Your task to perform on an android device: turn vacation reply on in the gmail app Image 0: 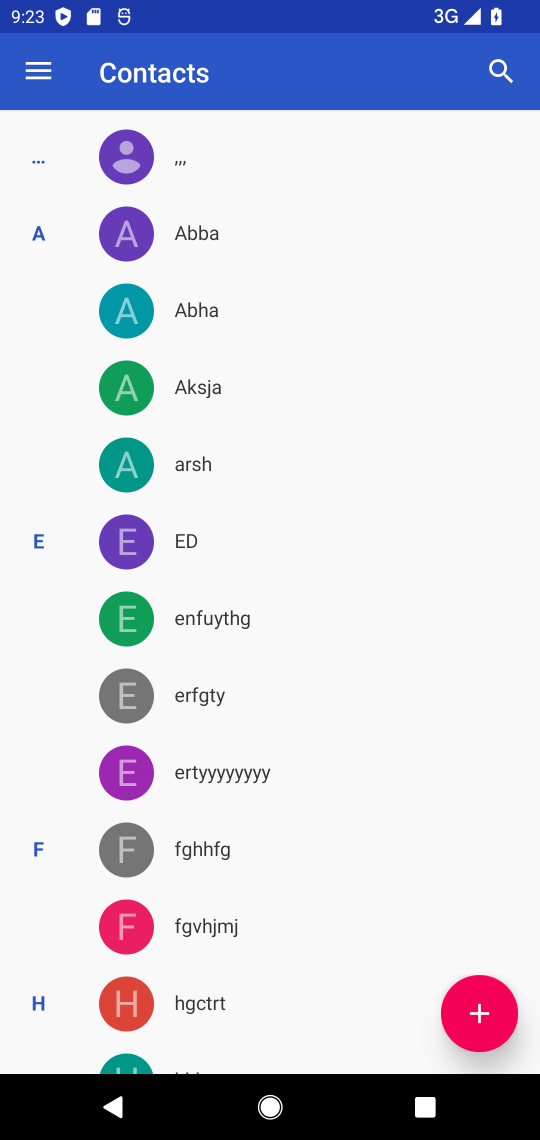
Step 0: press home button
Your task to perform on an android device: turn vacation reply on in the gmail app Image 1: 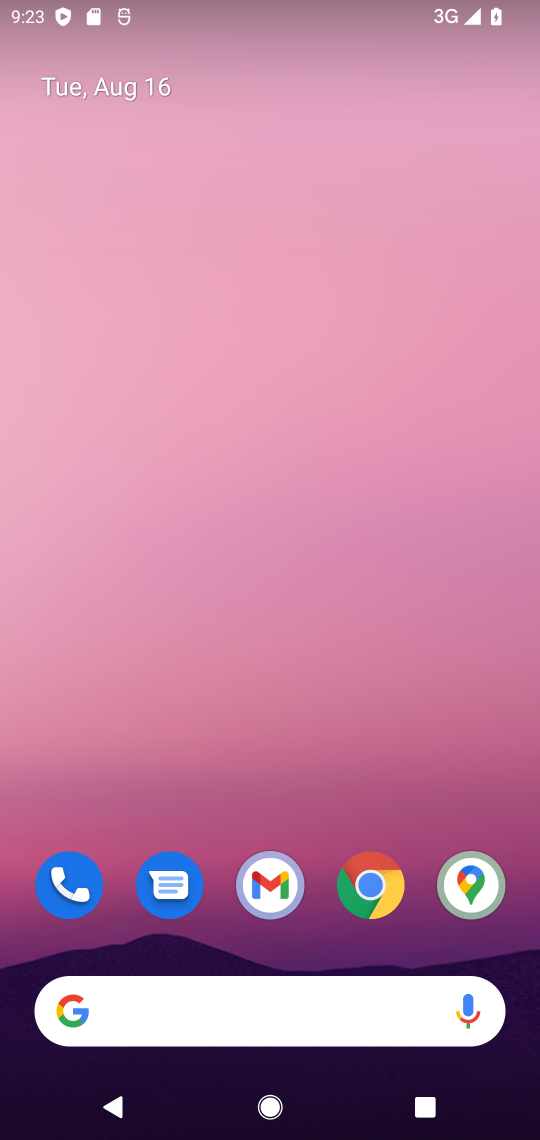
Step 1: click (269, 894)
Your task to perform on an android device: turn vacation reply on in the gmail app Image 2: 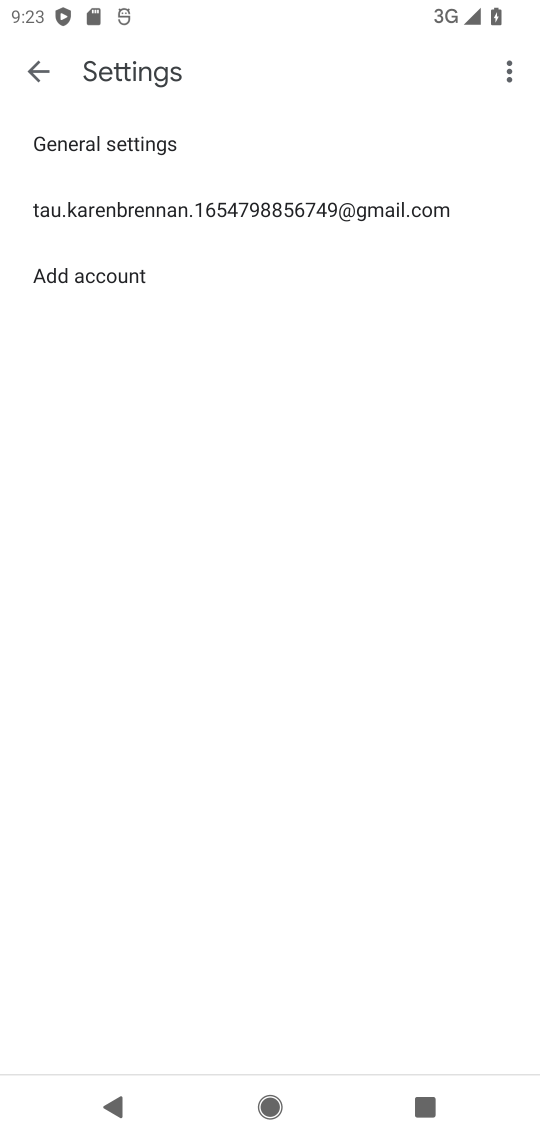
Step 2: click (37, 70)
Your task to perform on an android device: turn vacation reply on in the gmail app Image 3: 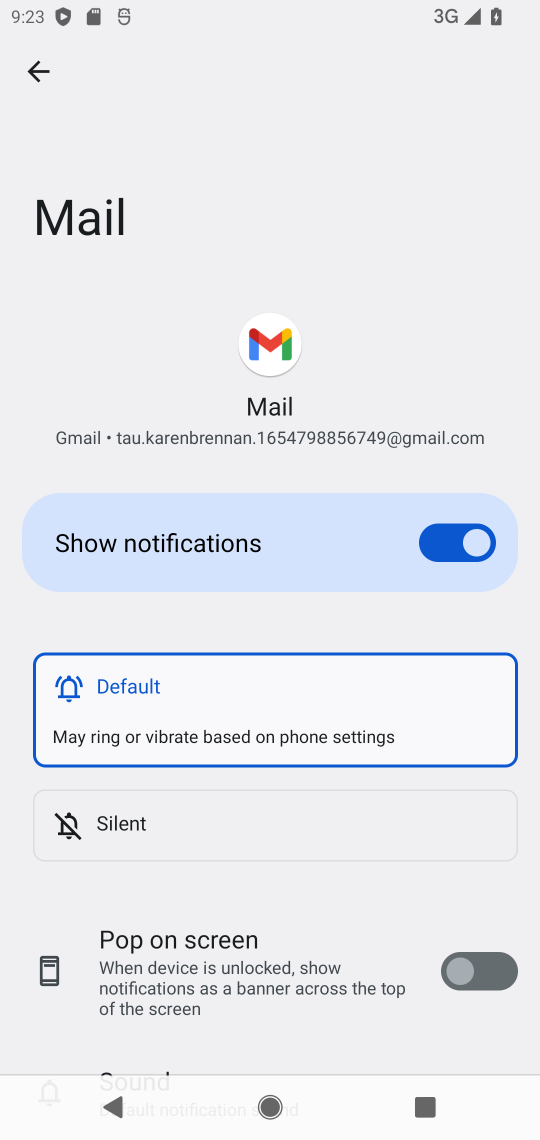
Step 3: click (37, 70)
Your task to perform on an android device: turn vacation reply on in the gmail app Image 4: 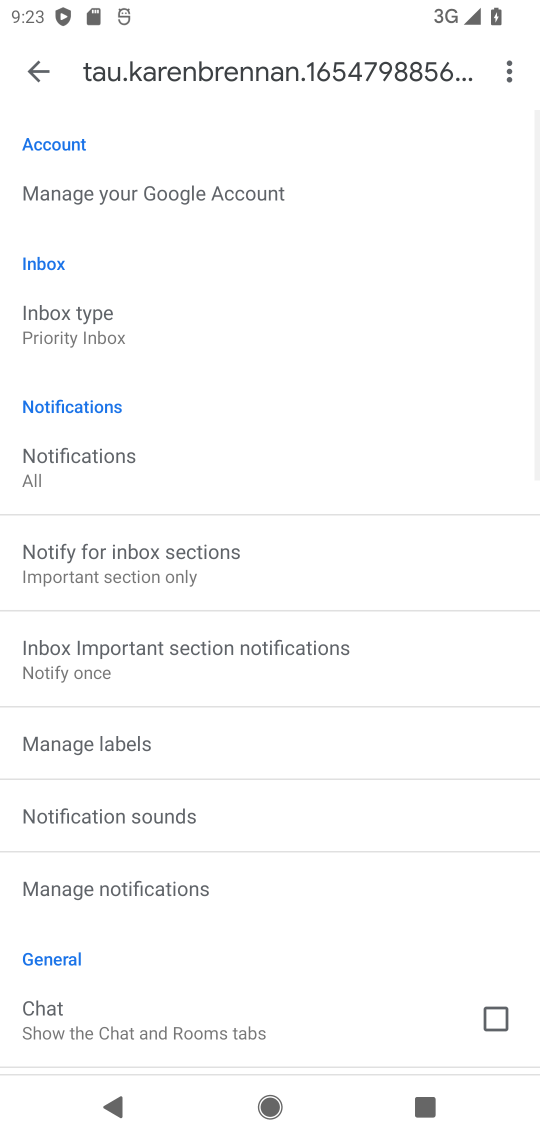
Step 4: click (37, 70)
Your task to perform on an android device: turn vacation reply on in the gmail app Image 5: 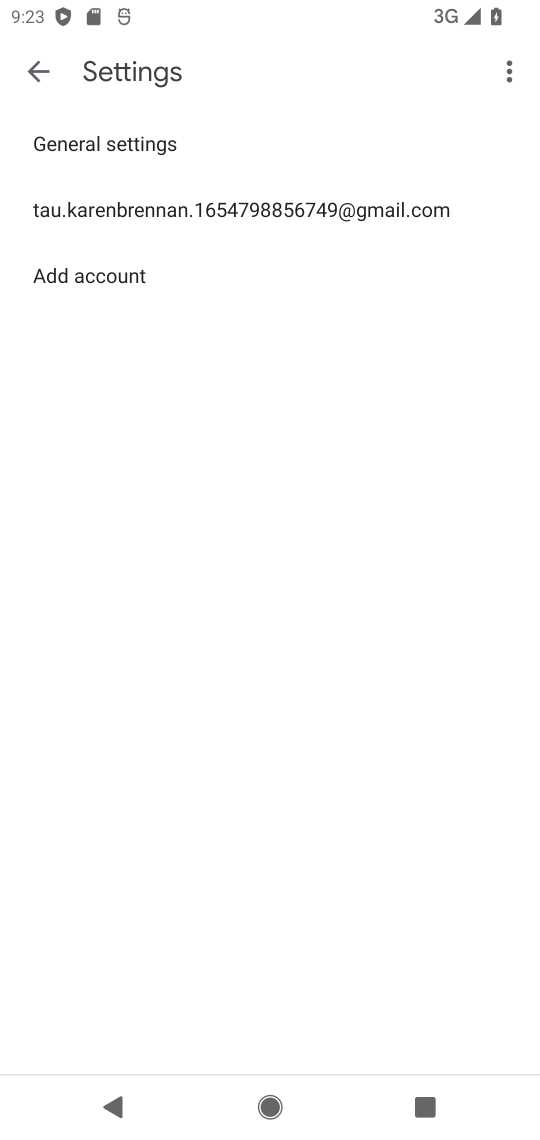
Step 5: click (209, 225)
Your task to perform on an android device: turn vacation reply on in the gmail app Image 6: 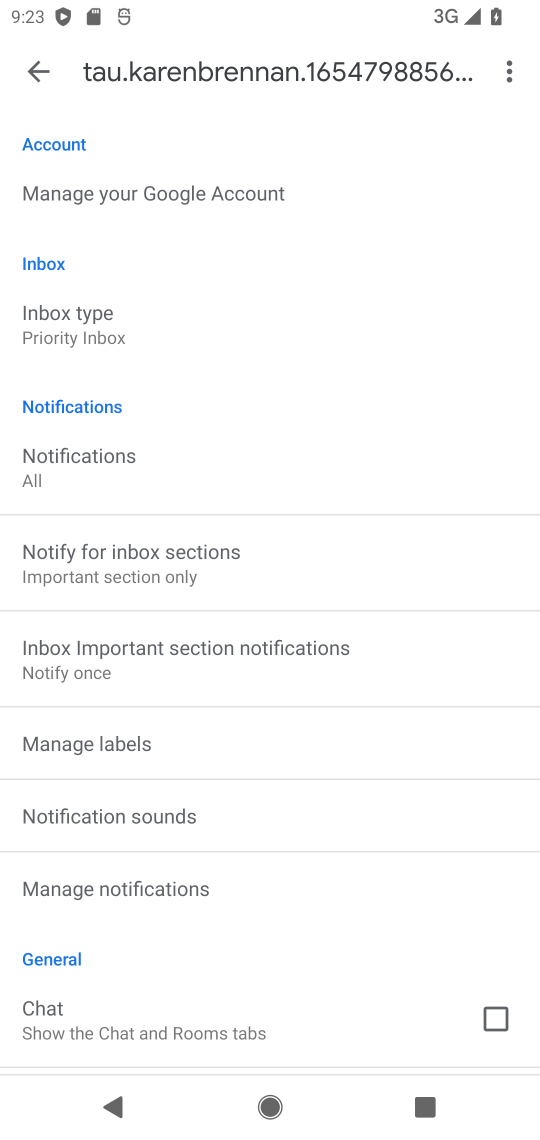
Step 6: drag from (333, 962) to (263, 333)
Your task to perform on an android device: turn vacation reply on in the gmail app Image 7: 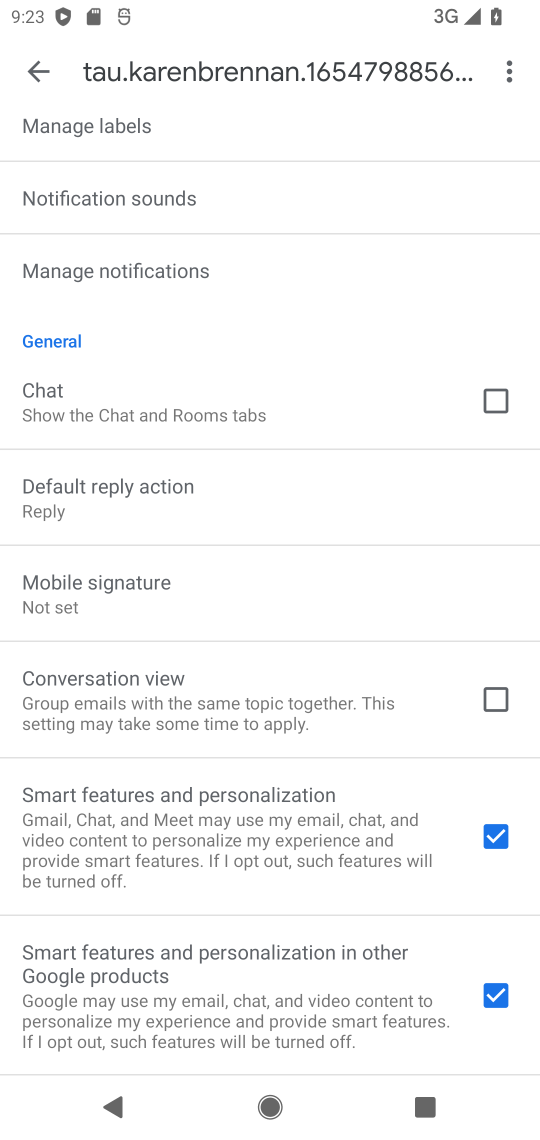
Step 7: drag from (245, 1029) to (245, 710)
Your task to perform on an android device: turn vacation reply on in the gmail app Image 8: 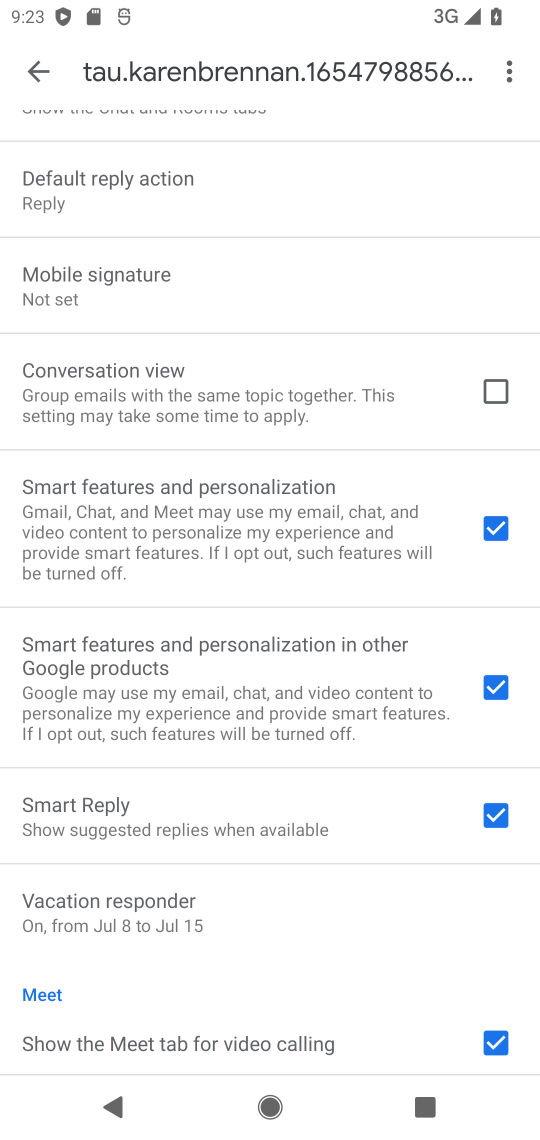
Step 8: click (132, 916)
Your task to perform on an android device: turn vacation reply on in the gmail app Image 9: 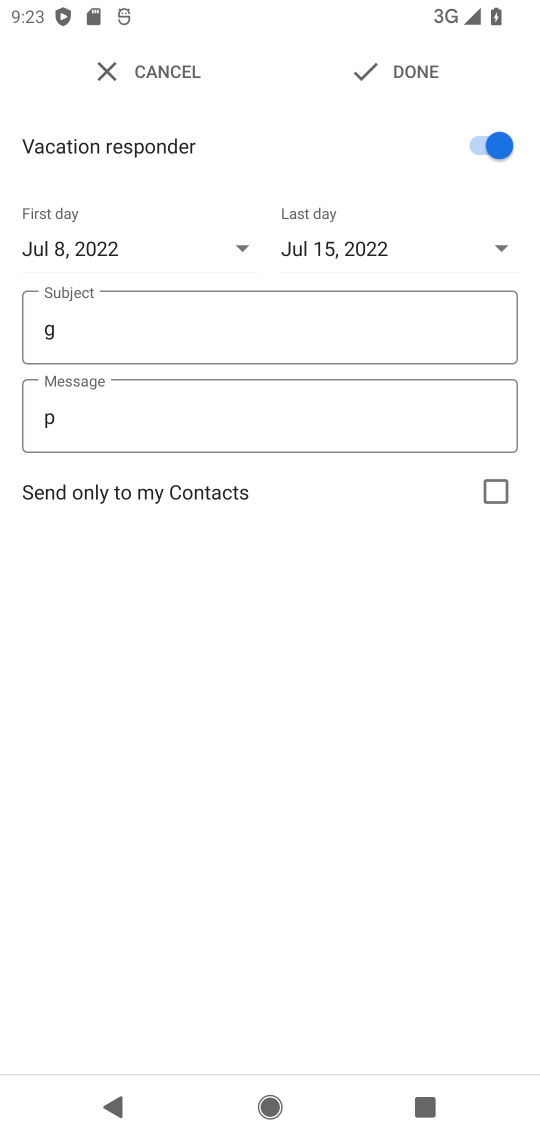
Step 9: click (415, 76)
Your task to perform on an android device: turn vacation reply on in the gmail app Image 10: 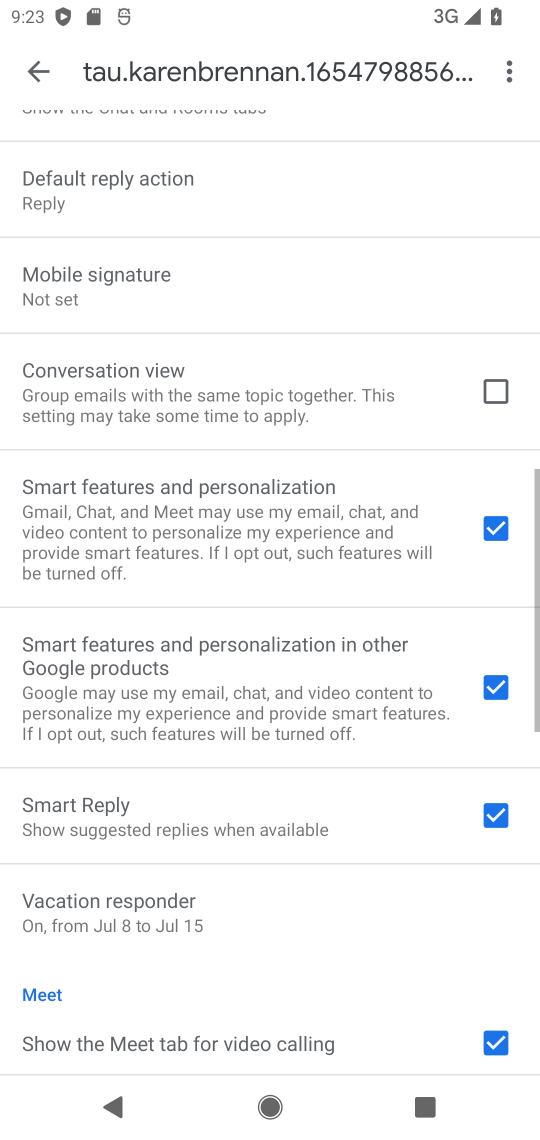
Step 10: task complete